Your task to perform on an android device: clear all cookies in the chrome app Image 0: 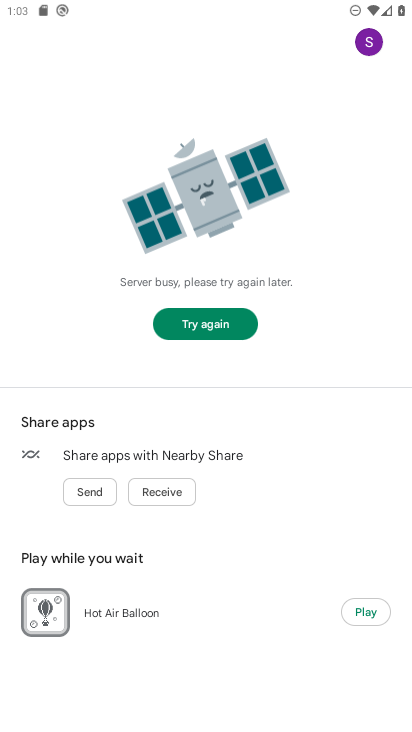
Step 0: press home button
Your task to perform on an android device: clear all cookies in the chrome app Image 1: 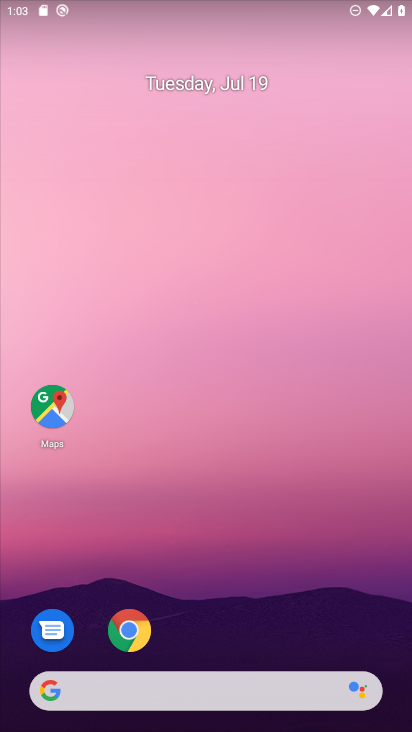
Step 1: click (134, 631)
Your task to perform on an android device: clear all cookies in the chrome app Image 2: 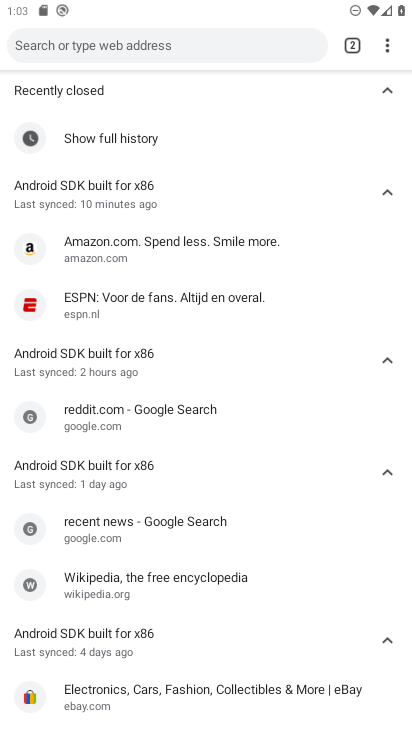
Step 2: drag from (387, 48) to (283, 381)
Your task to perform on an android device: clear all cookies in the chrome app Image 3: 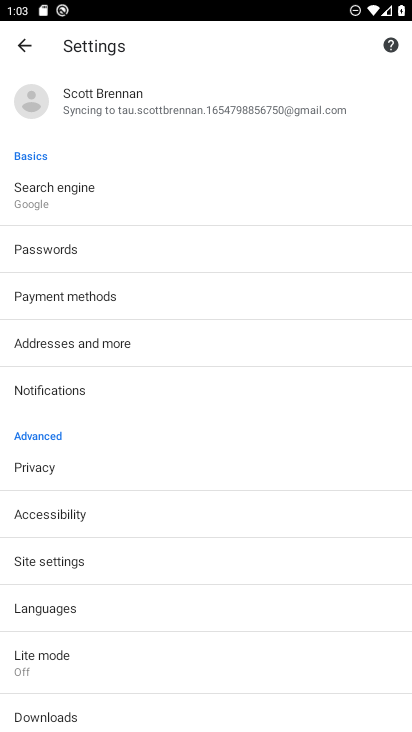
Step 3: drag from (173, 577) to (245, 279)
Your task to perform on an android device: clear all cookies in the chrome app Image 4: 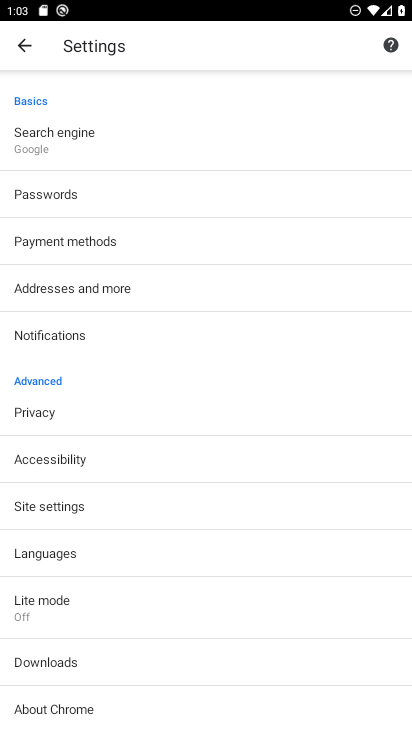
Step 4: click (58, 410)
Your task to perform on an android device: clear all cookies in the chrome app Image 5: 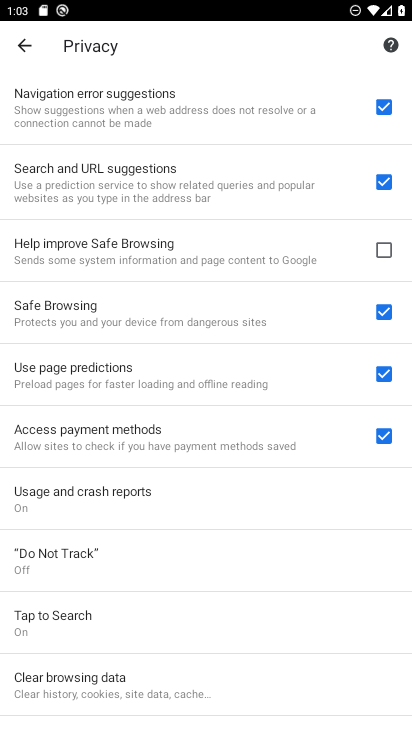
Step 5: drag from (257, 608) to (377, 91)
Your task to perform on an android device: clear all cookies in the chrome app Image 6: 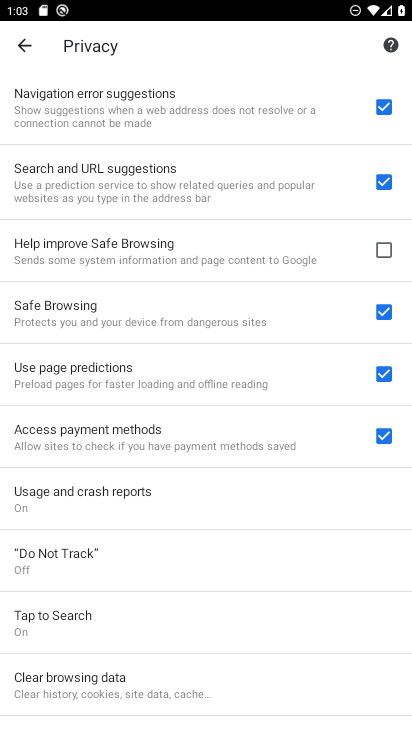
Step 6: click (136, 687)
Your task to perform on an android device: clear all cookies in the chrome app Image 7: 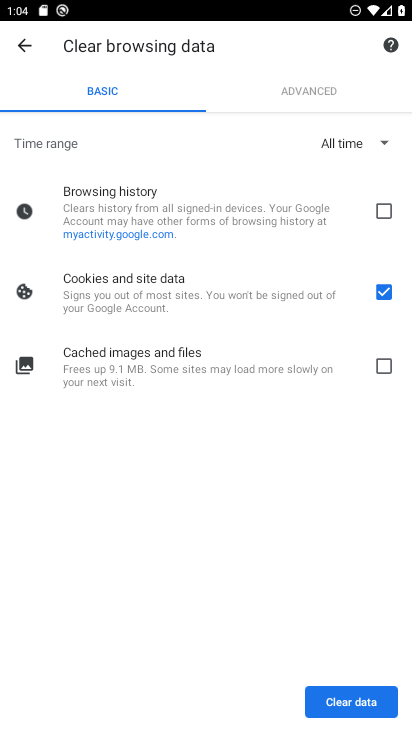
Step 7: click (348, 705)
Your task to perform on an android device: clear all cookies in the chrome app Image 8: 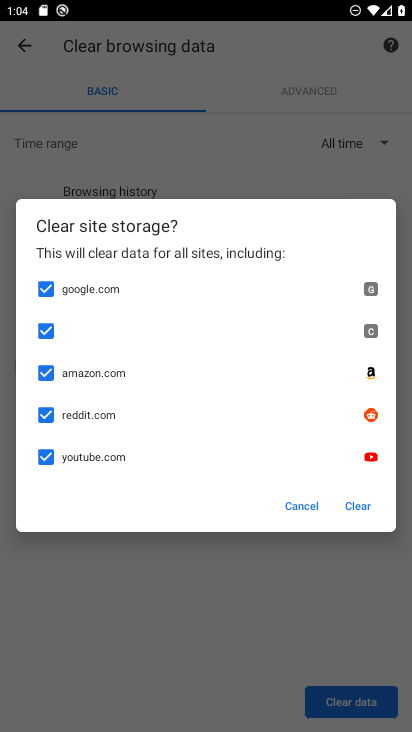
Step 8: click (349, 503)
Your task to perform on an android device: clear all cookies in the chrome app Image 9: 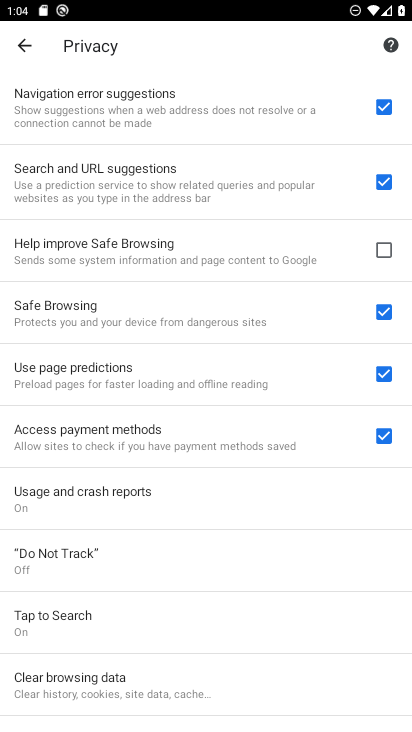
Step 9: task complete